Your task to perform on an android device: open device folders in google photos Image 0: 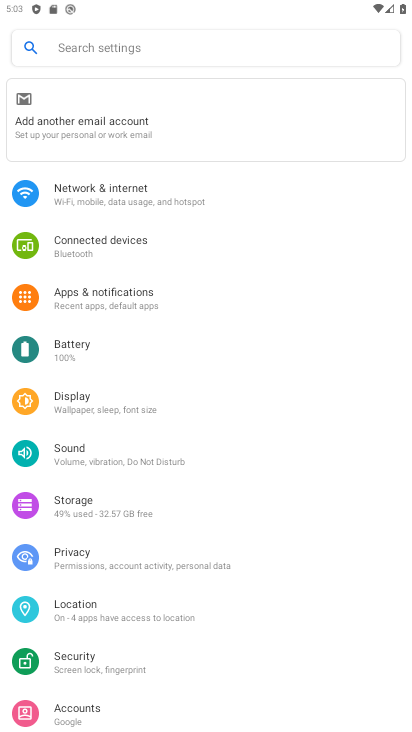
Step 0: press home button
Your task to perform on an android device: open device folders in google photos Image 1: 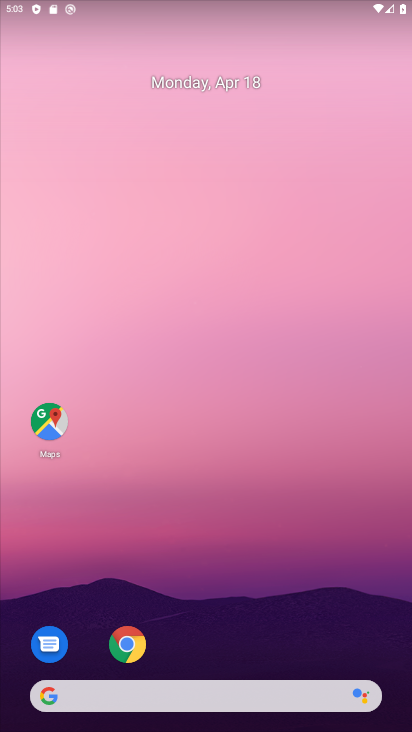
Step 1: drag from (217, 598) to (255, 140)
Your task to perform on an android device: open device folders in google photos Image 2: 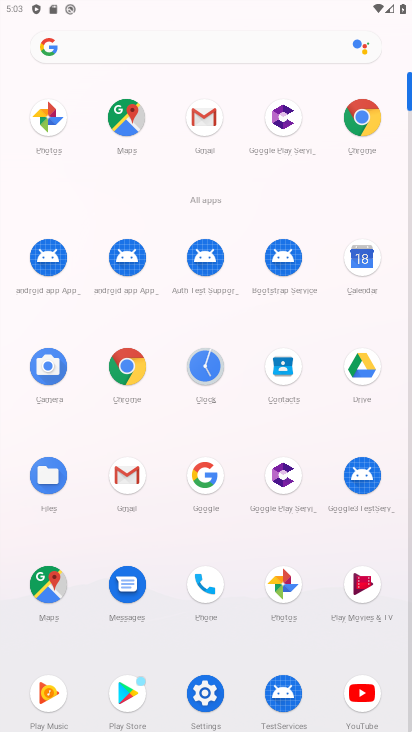
Step 2: click (283, 576)
Your task to perform on an android device: open device folders in google photos Image 3: 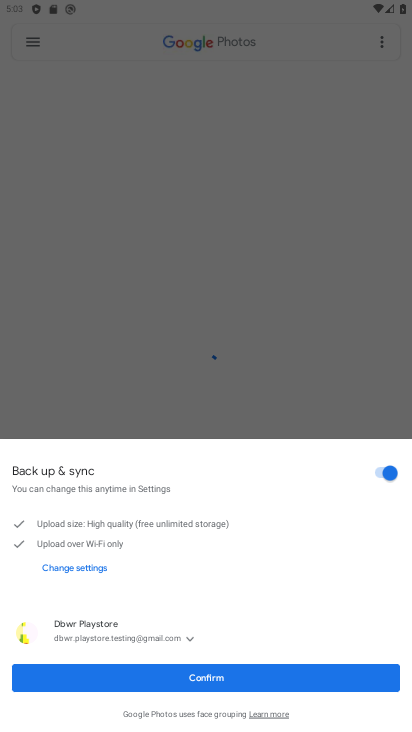
Step 3: click (217, 671)
Your task to perform on an android device: open device folders in google photos Image 4: 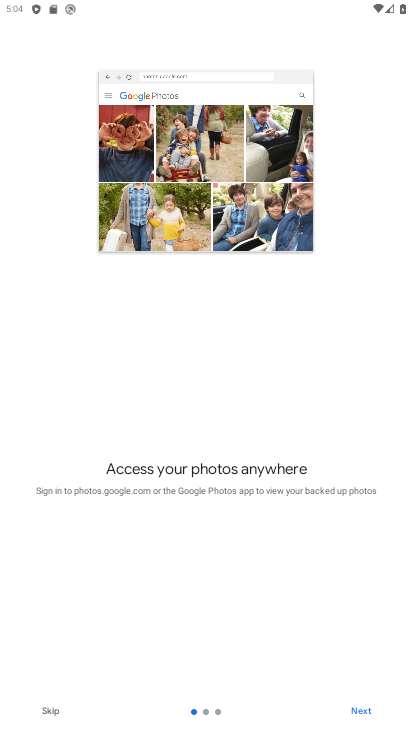
Step 4: click (354, 710)
Your task to perform on an android device: open device folders in google photos Image 5: 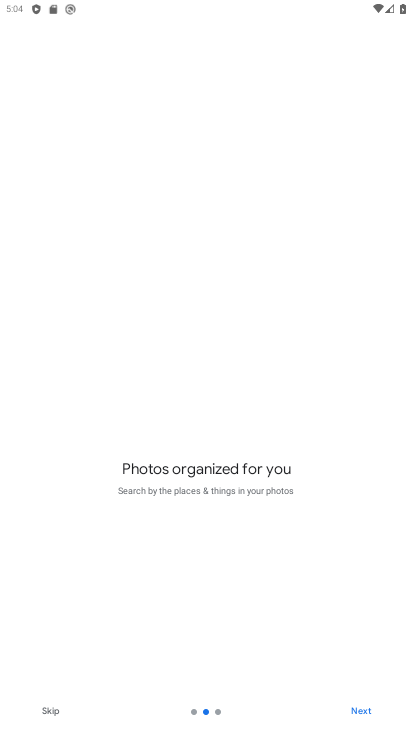
Step 5: click (355, 710)
Your task to perform on an android device: open device folders in google photos Image 6: 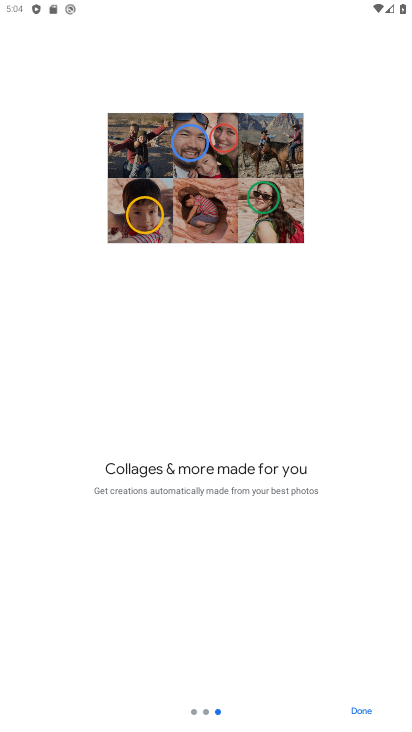
Step 6: click (355, 710)
Your task to perform on an android device: open device folders in google photos Image 7: 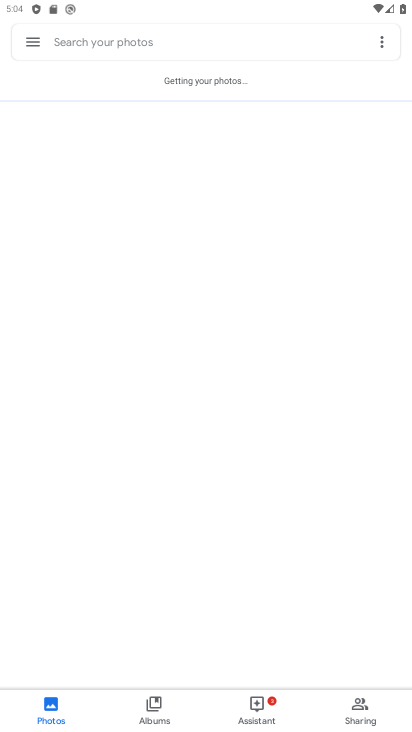
Step 7: click (28, 39)
Your task to perform on an android device: open device folders in google photos Image 8: 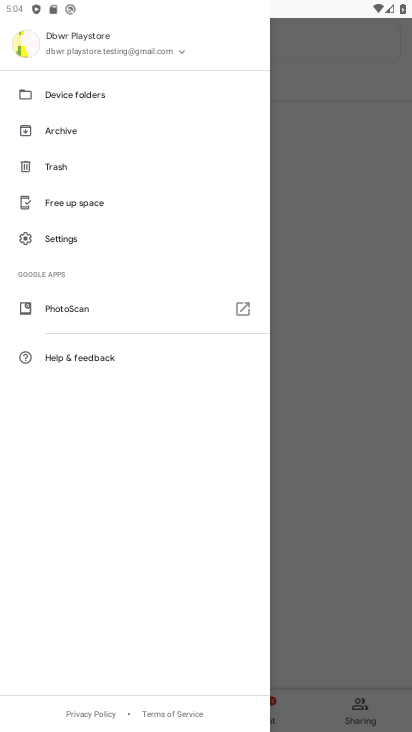
Step 8: click (75, 94)
Your task to perform on an android device: open device folders in google photos Image 9: 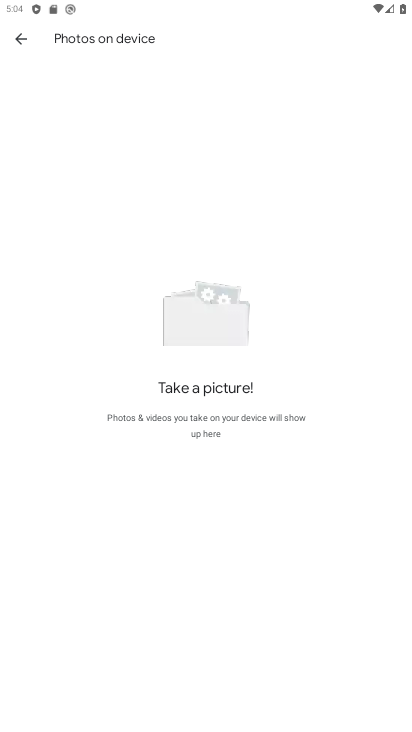
Step 9: task complete